Your task to perform on an android device: set the stopwatch Image 0: 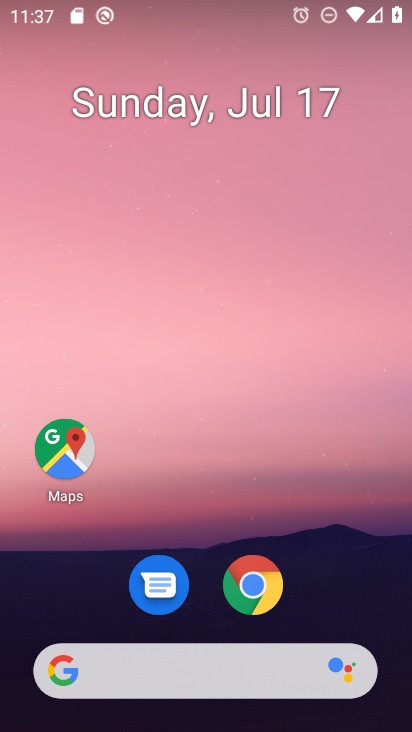
Step 0: drag from (338, 556) to (290, 33)
Your task to perform on an android device: set the stopwatch Image 1: 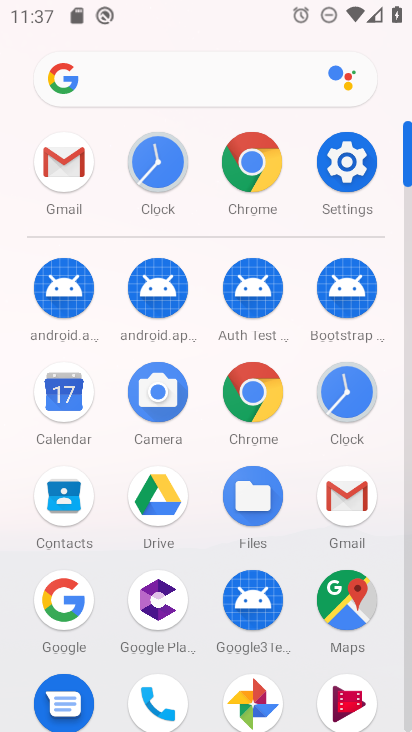
Step 1: click (353, 396)
Your task to perform on an android device: set the stopwatch Image 2: 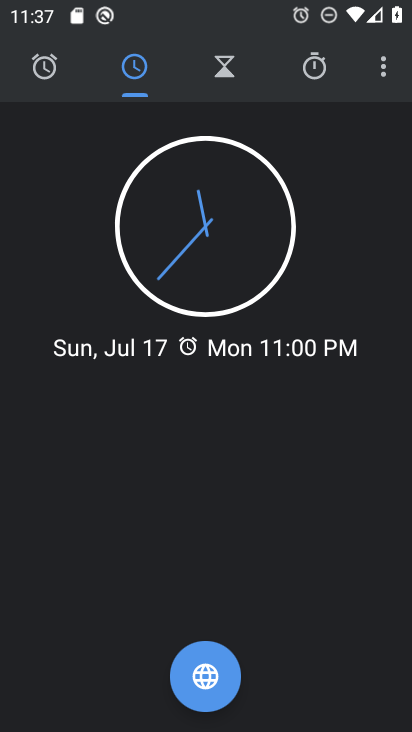
Step 2: click (306, 69)
Your task to perform on an android device: set the stopwatch Image 3: 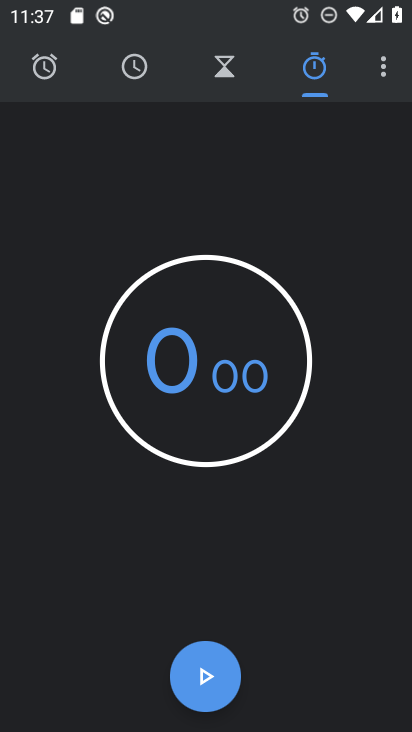
Step 3: task complete